Your task to perform on an android device: open app "LinkedIn" Image 0: 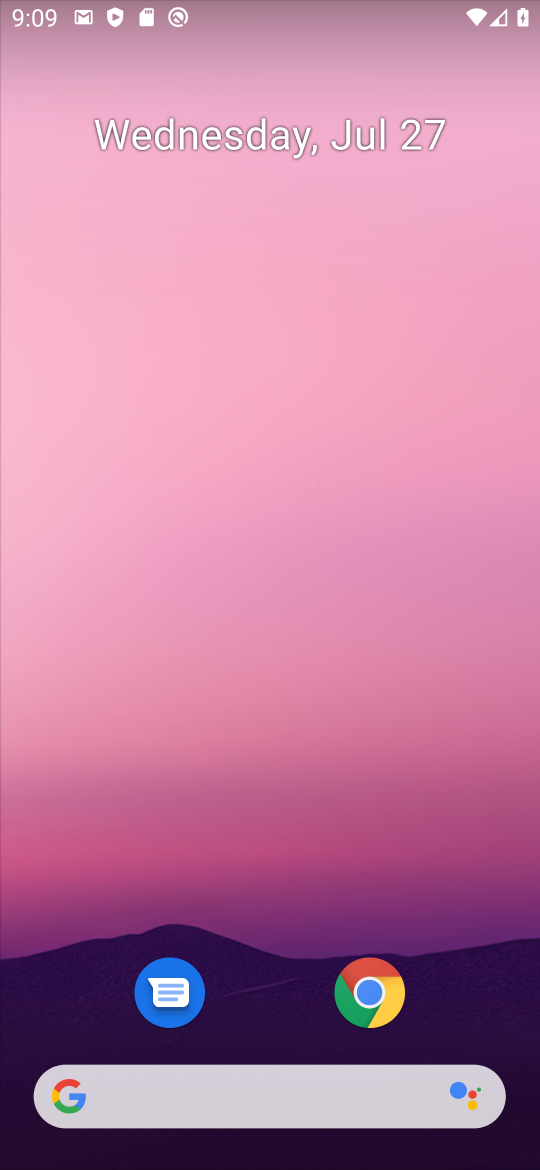
Step 0: drag from (321, 964) to (393, 264)
Your task to perform on an android device: open app "LinkedIn" Image 1: 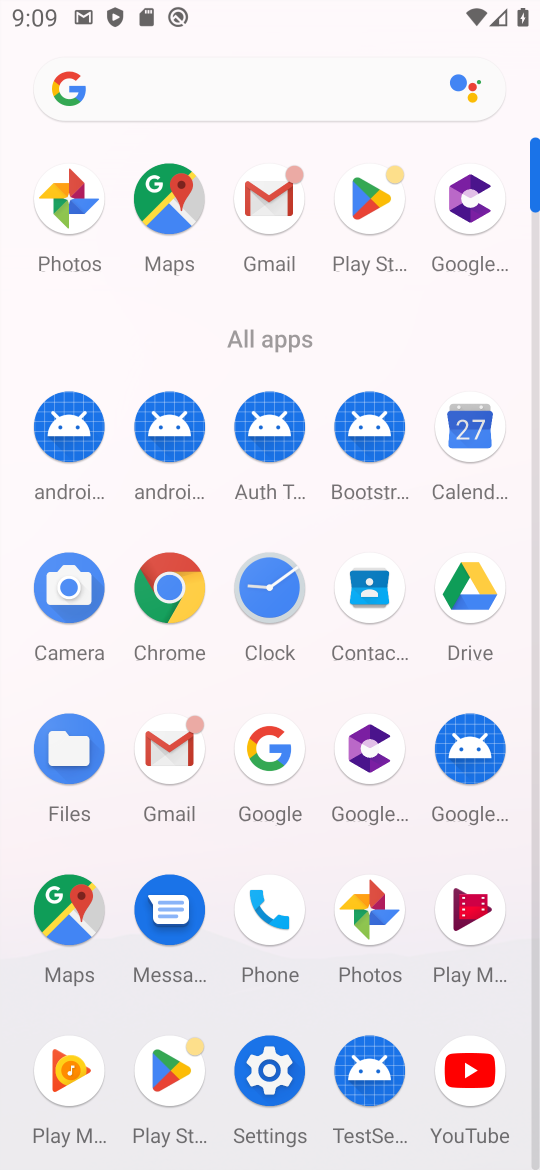
Step 1: click (169, 1073)
Your task to perform on an android device: open app "LinkedIn" Image 2: 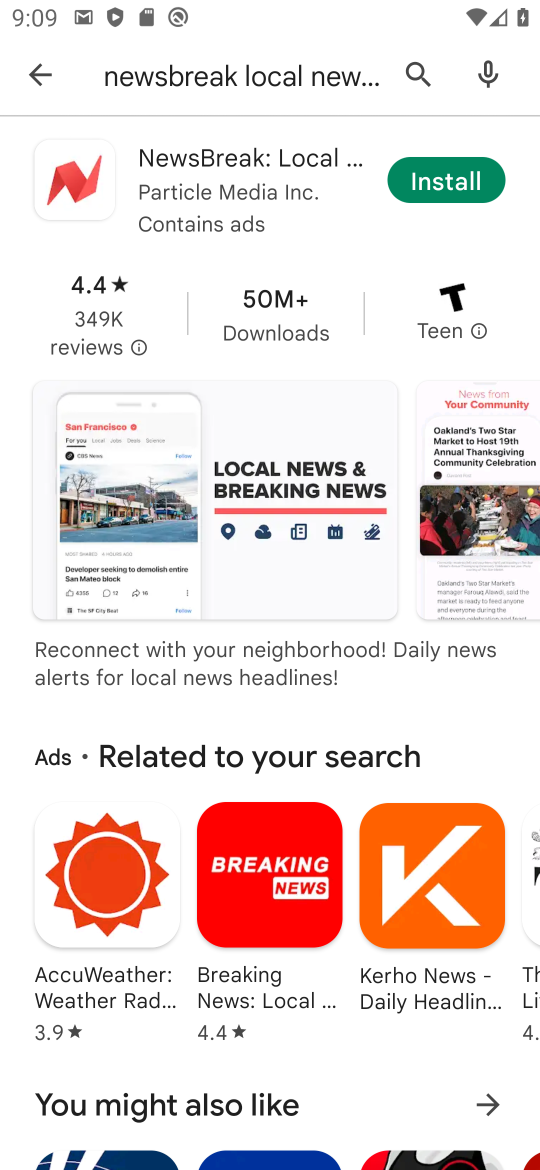
Step 2: click (410, 65)
Your task to perform on an android device: open app "LinkedIn" Image 3: 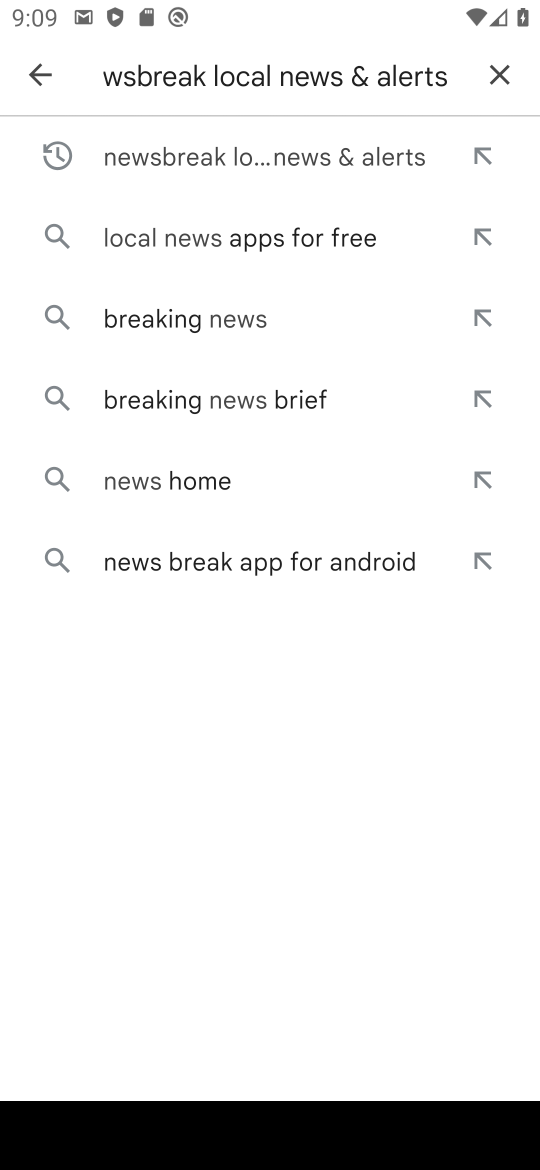
Step 3: click (495, 73)
Your task to perform on an android device: open app "LinkedIn" Image 4: 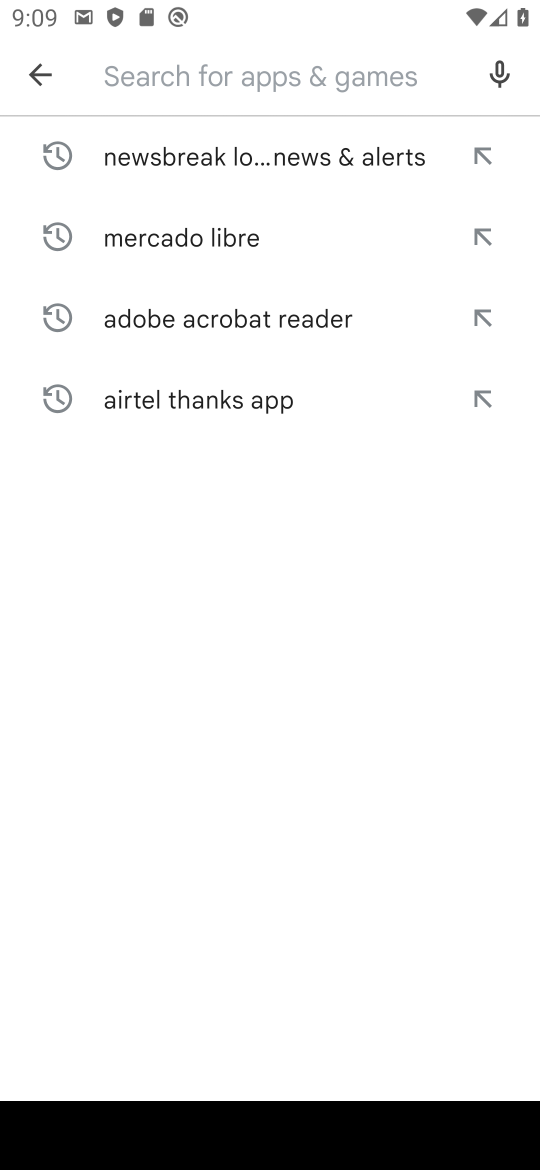
Step 4: type "Linkedin"
Your task to perform on an android device: open app "LinkedIn" Image 5: 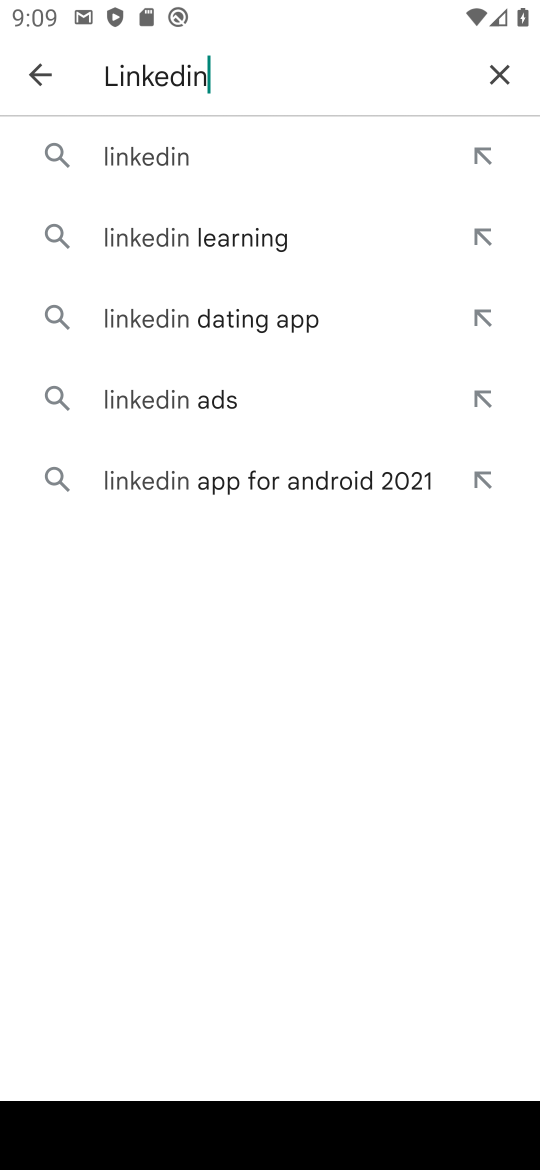
Step 5: click (122, 158)
Your task to perform on an android device: open app "LinkedIn" Image 6: 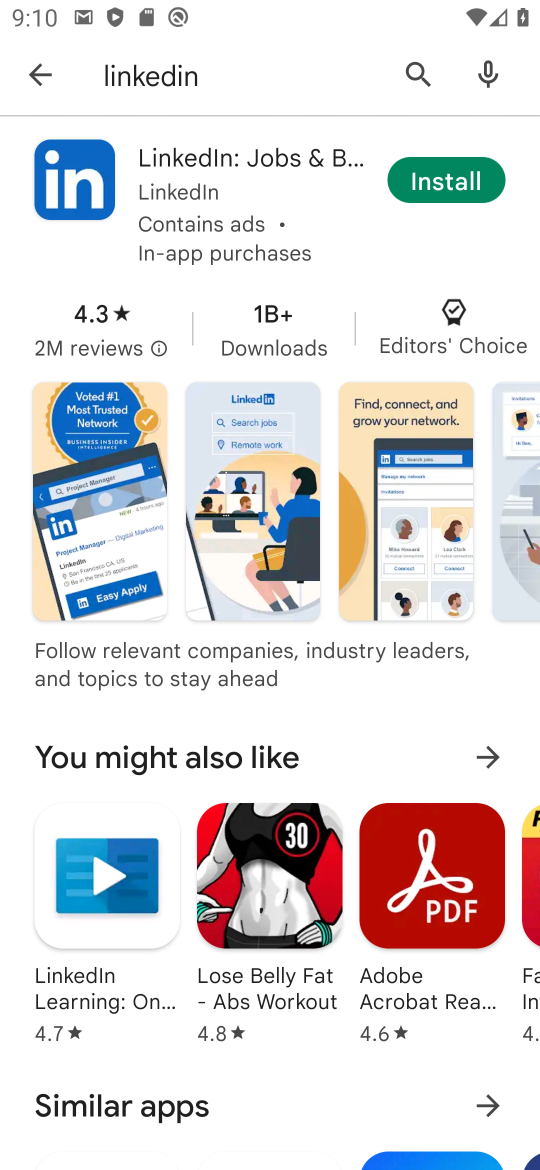
Step 6: task complete